Your task to perform on an android device: change alarm snooze length Image 0: 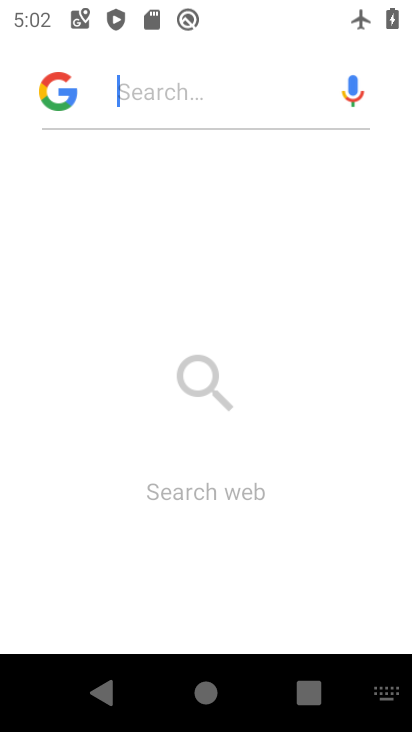
Step 0: drag from (230, 564) to (238, 351)
Your task to perform on an android device: change alarm snooze length Image 1: 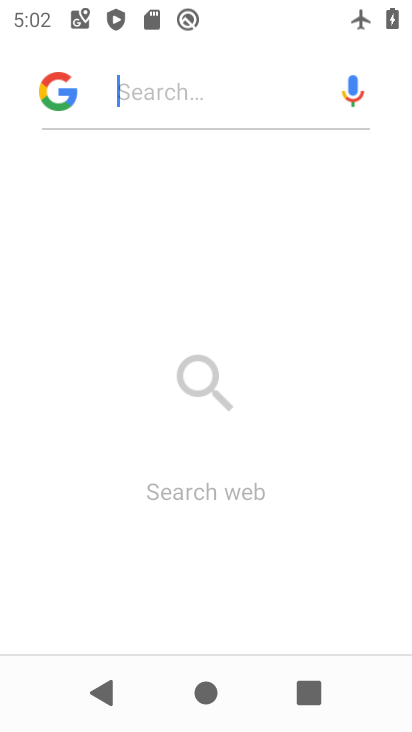
Step 1: drag from (207, 419) to (252, 240)
Your task to perform on an android device: change alarm snooze length Image 2: 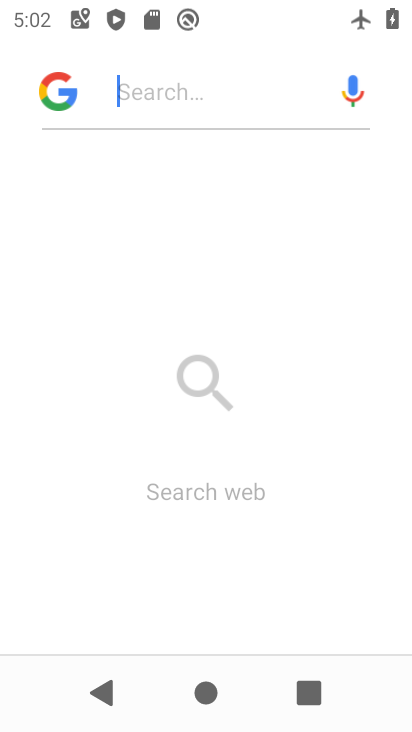
Step 2: press home button
Your task to perform on an android device: change alarm snooze length Image 3: 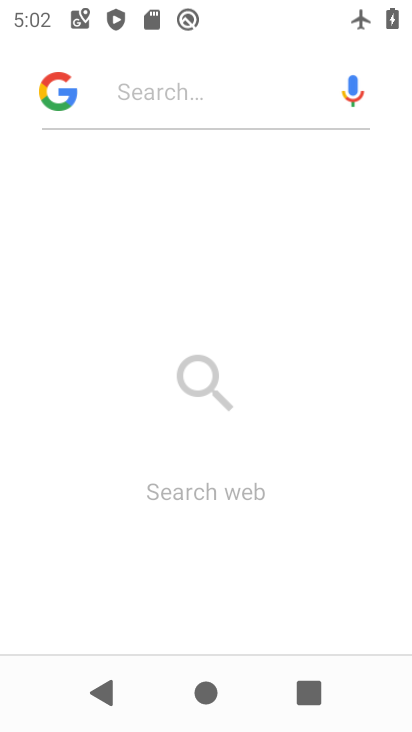
Step 3: press home button
Your task to perform on an android device: change alarm snooze length Image 4: 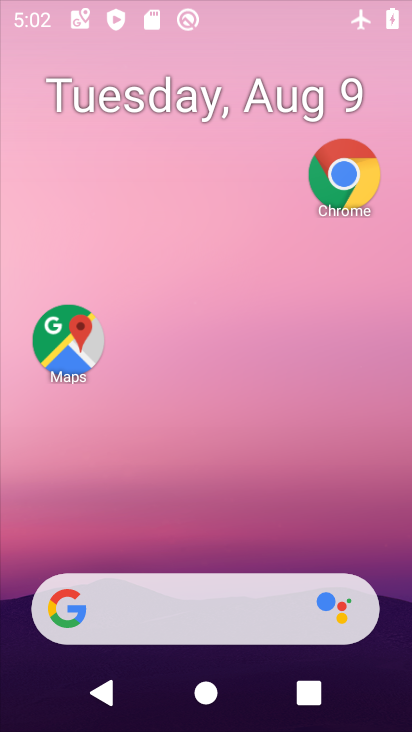
Step 4: drag from (233, 536) to (233, 2)
Your task to perform on an android device: change alarm snooze length Image 5: 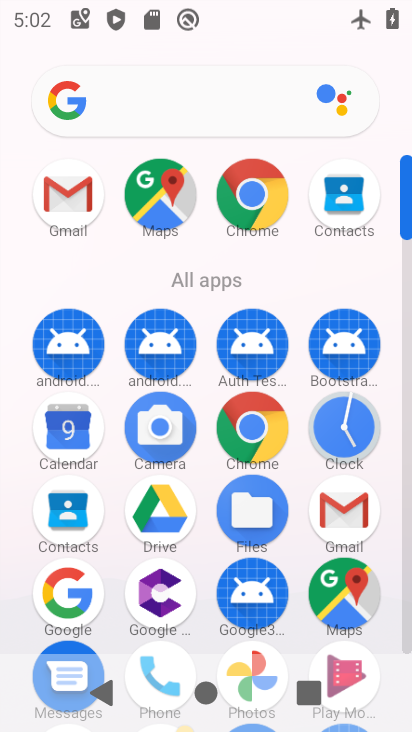
Step 5: drag from (197, 535) to (215, 199)
Your task to perform on an android device: change alarm snooze length Image 6: 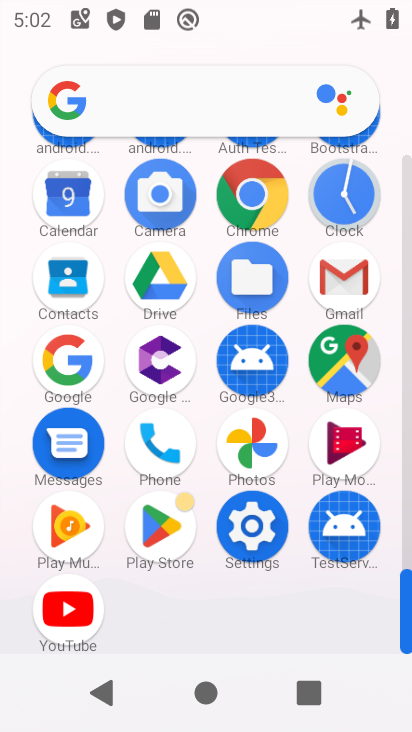
Step 6: click (349, 187)
Your task to perform on an android device: change alarm snooze length Image 7: 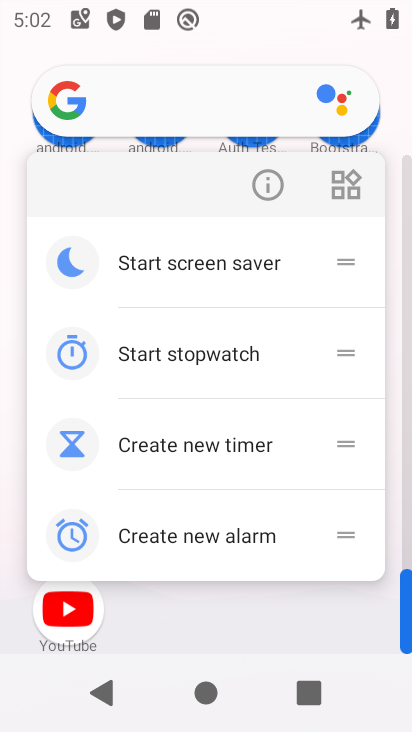
Step 7: click (261, 188)
Your task to perform on an android device: change alarm snooze length Image 8: 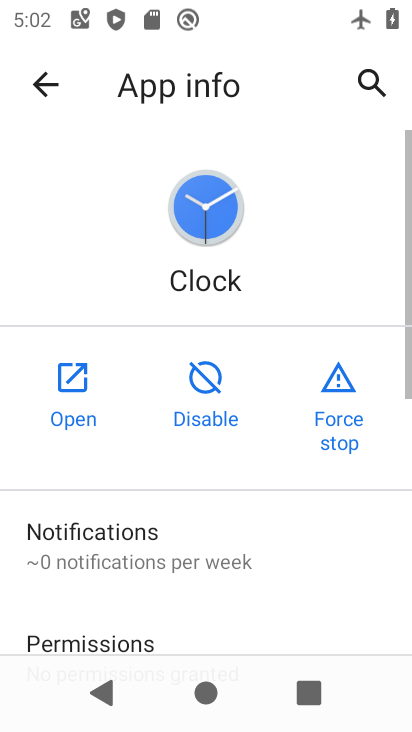
Step 8: click (66, 375)
Your task to perform on an android device: change alarm snooze length Image 9: 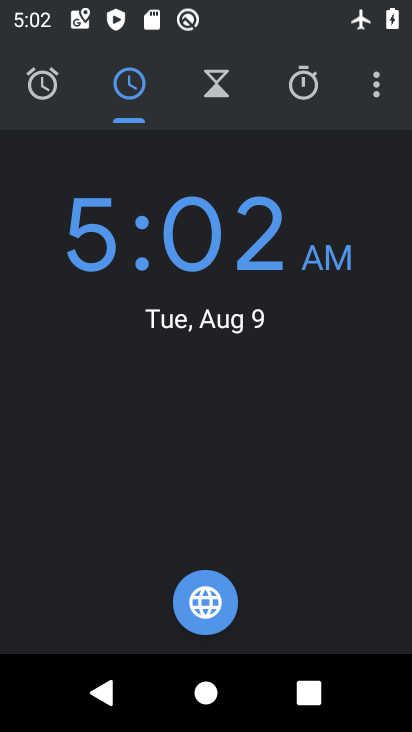
Step 9: click (362, 76)
Your task to perform on an android device: change alarm snooze length Image 10: 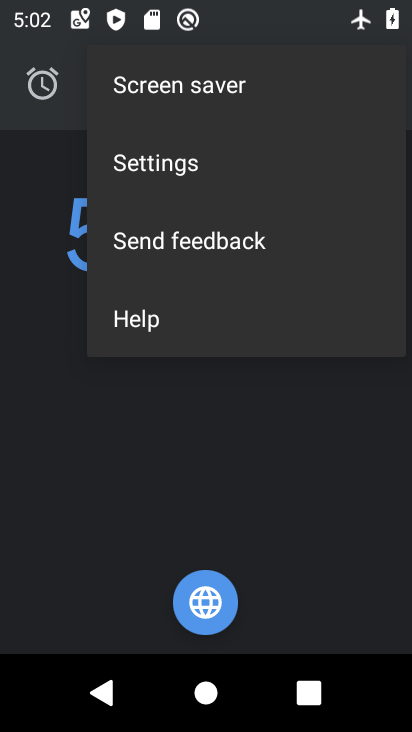
Step 10: click (179, 162)
Your task to perform on an android device: change alarm snooze length Image 11: 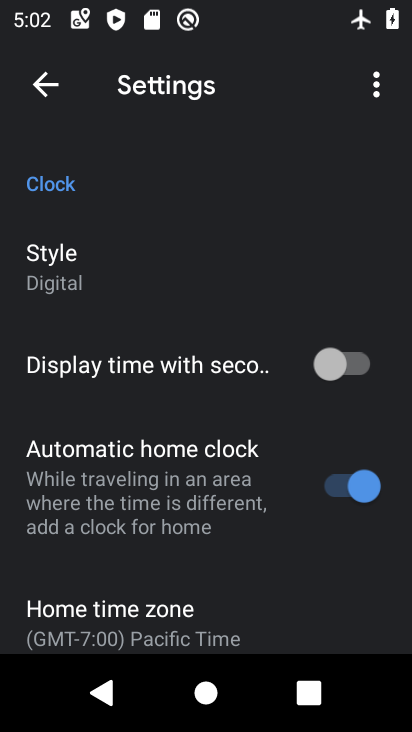
Step 11: drag from (168, 452) to (198, 135)
Your task to perform on an android device: change alarm snooze length Image 12: 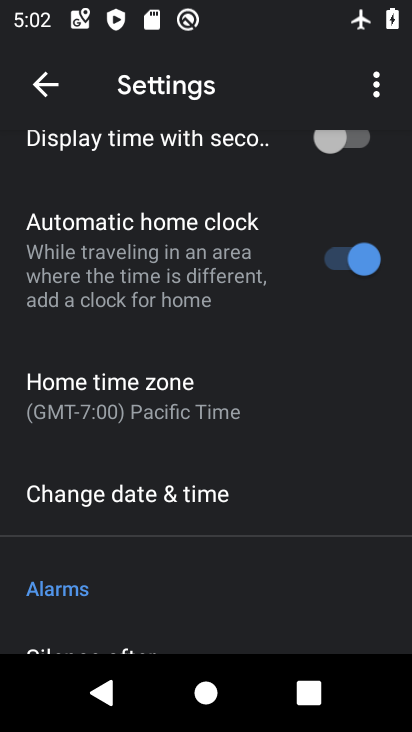
Step 12: drag from (172, 488) to (222, 108)
Your task to perform on an android device: change alarm snooze length Image 13: 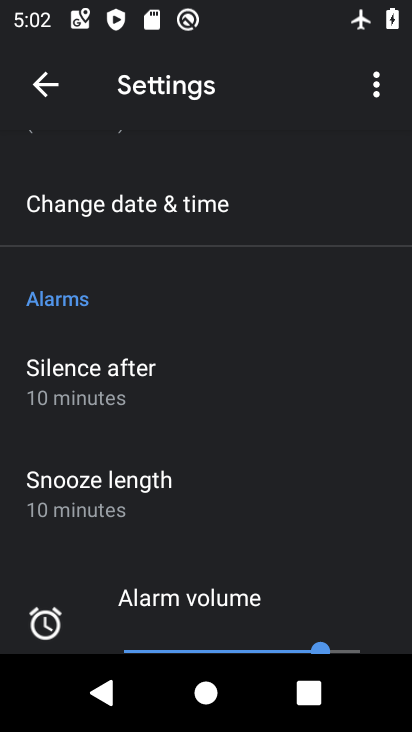
Step 13: click (143, 488)
Your task to perform on an android device: change alarm snooze length Image 14: 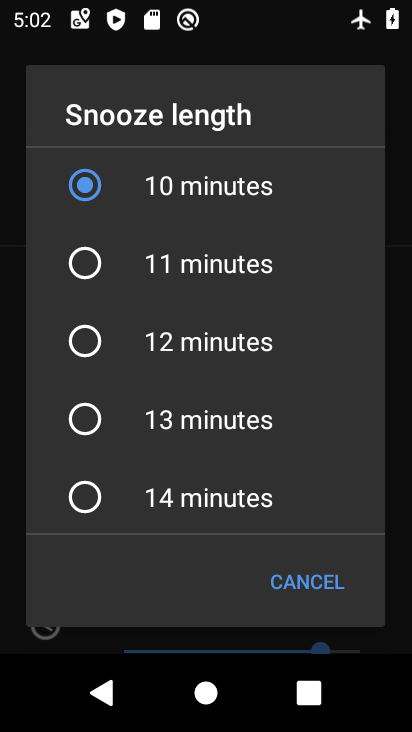
Step 14: click (97, 266)
Your task to perform on an android device: change alarm snooze length Image 15: 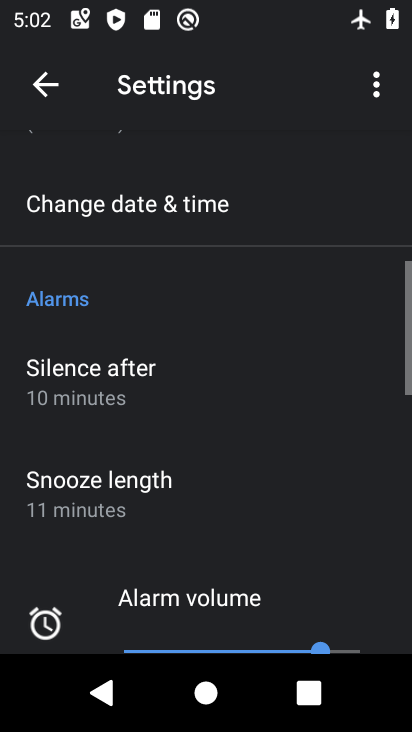
Step 15: task complete